Your task to perform on an android device: Open network settings Image 0: 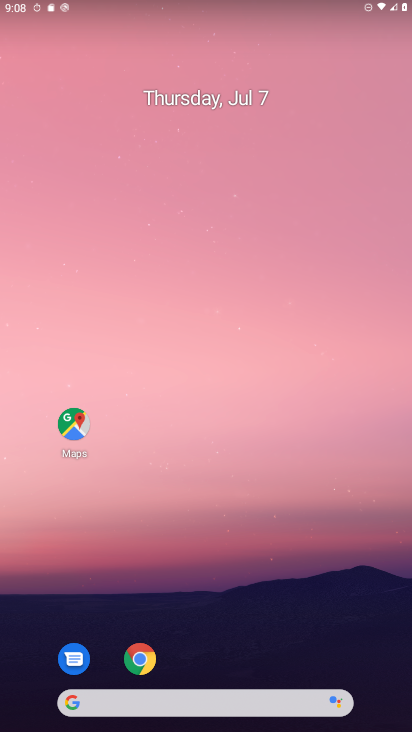
Step 0: drag from (384, 696) to (238, 28)
Your task to perform on an android device: Open network settings Image 1: 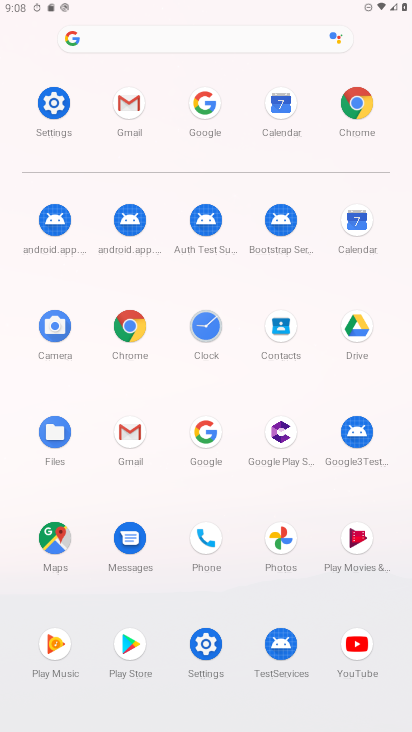
Step 1: click (58, 105)
Your task to perform on an android device: Open network settings Image 2: 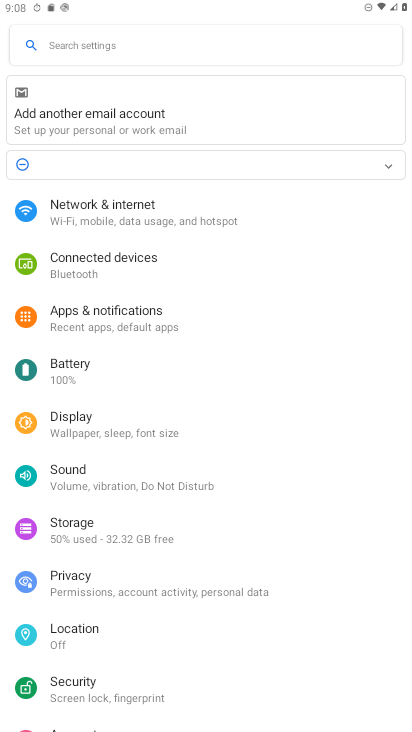
Step 2: click (188, 225)
Your task to perform on an android device: Open network settings Image 3: 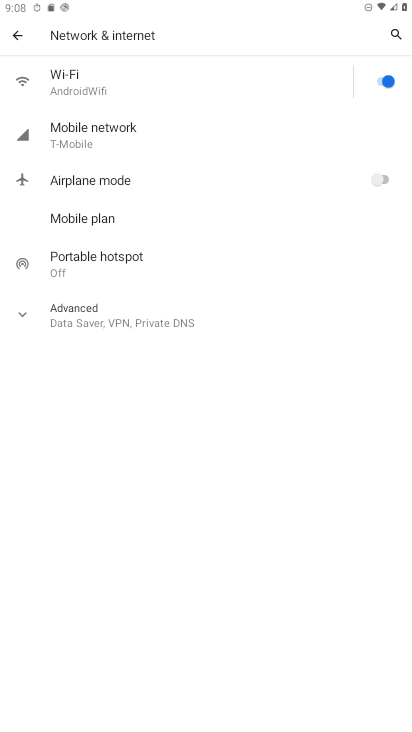
Step 3: task complete